Your task to perform on an android device: see creations saved in the google photos Image 0: 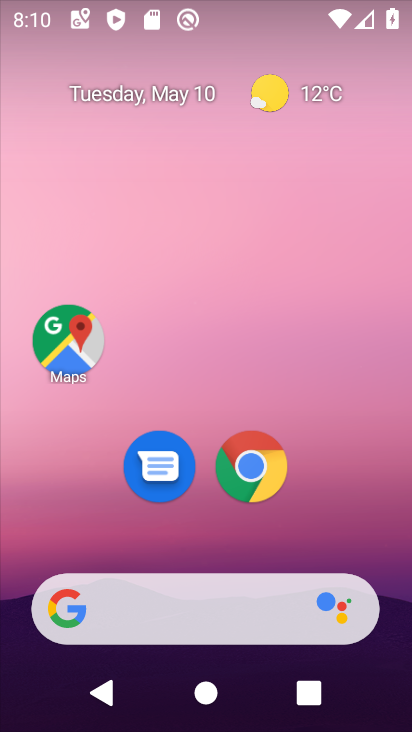
Step 0: drag from (210, 549) to (226, 0)
Your task to perform on an android device: see creations saved in the google photos Image 1: 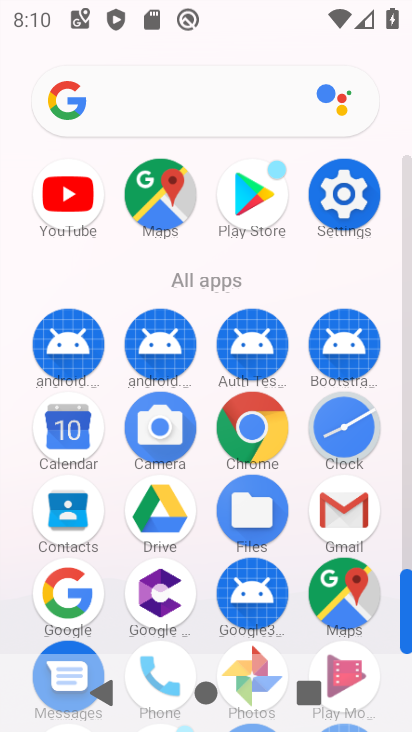
Step 1: drag from (207, 509) to (224, 276)
Your task to perform on an android device: see creations saved in the google photos Image 2: 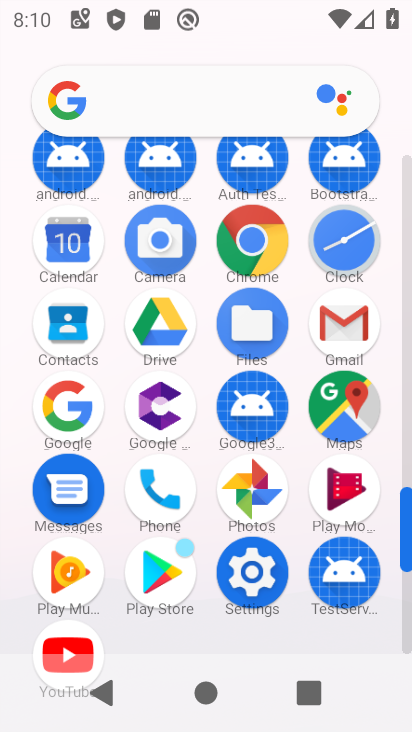
Step 2: click (247, 488)
Your task to perform on an android device: see creations saved in the google photos Image 3: 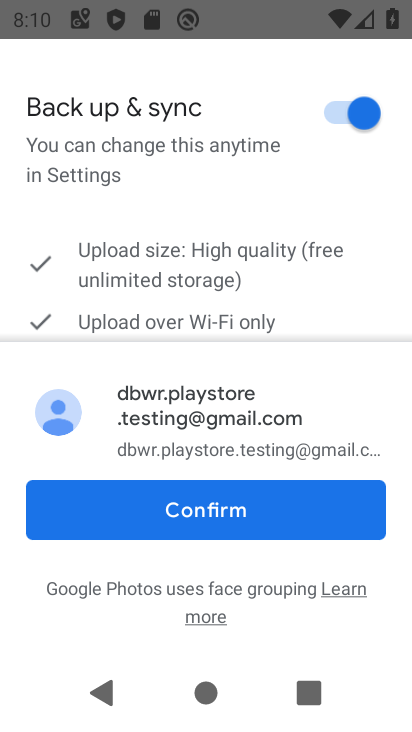
Step 3: click (238, 509)
Your task to perform on an android device: see creations saved in the google photos Image 4: 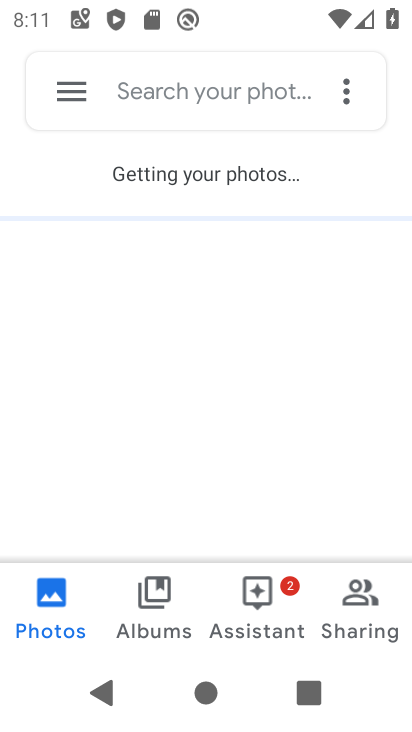
Step 4: click (221, 93)
Your task to perform on an android device: see creations saved in the google photos Image 5: 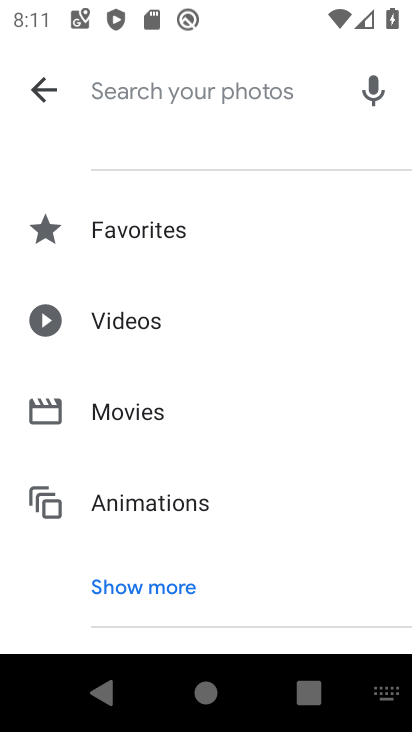
Step 5: type "creations"
Your task to perform on an android device: see creations saved in the google photos Image 6: 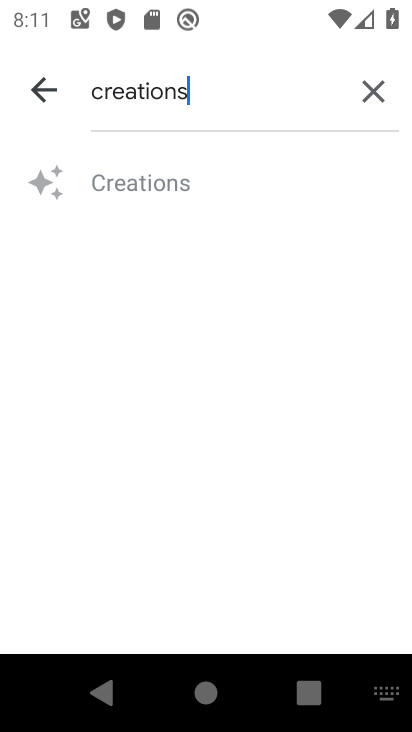
Step 6: click (200, 189)
Your task to perform on an android device: see creations saved in the google photos Image 7: 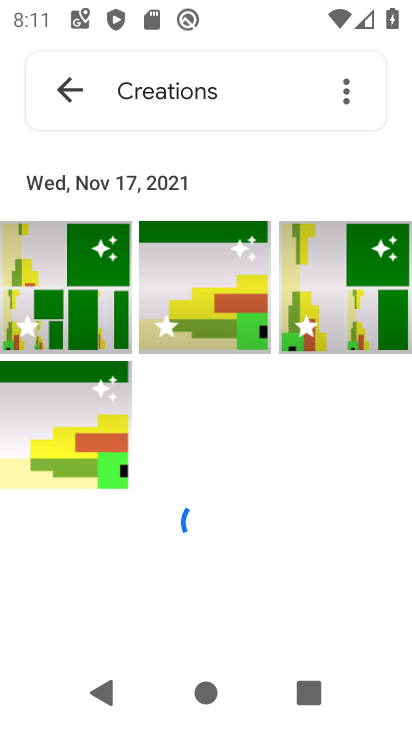
Step 7: click (68, 280)
Your task to perform on an android device: see creations saved in the google photos Image 8: 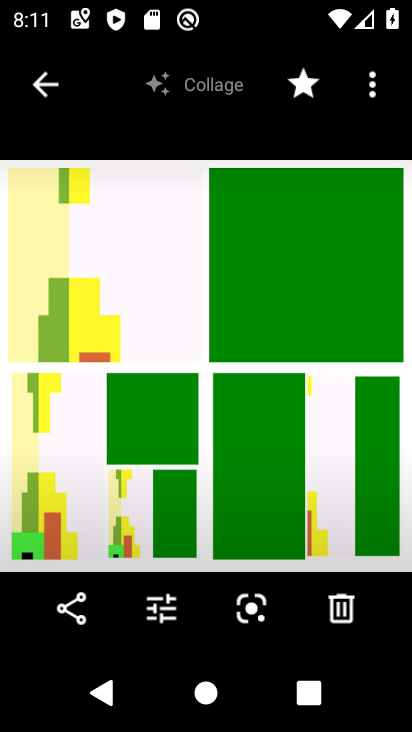
Step 8: task complete